Your task to perform on an android device: Show me recent news Image 0: 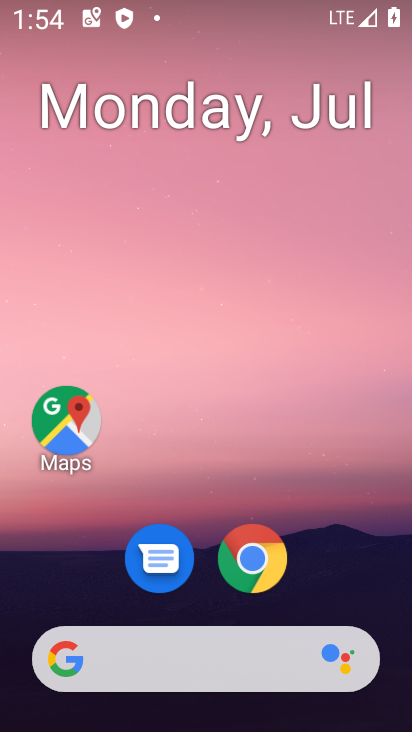
Step 0: press home button
Your task to perform on an android device: Show me recent news Image 1: 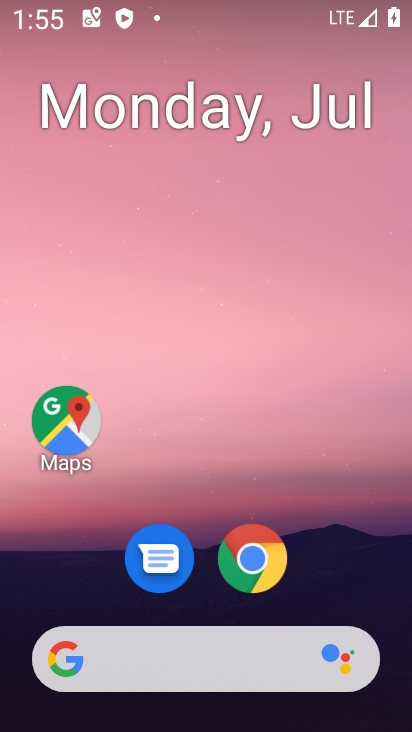
Step 1: task complete